Your task to perform on an android device: open app "Google Drive" Image 0: 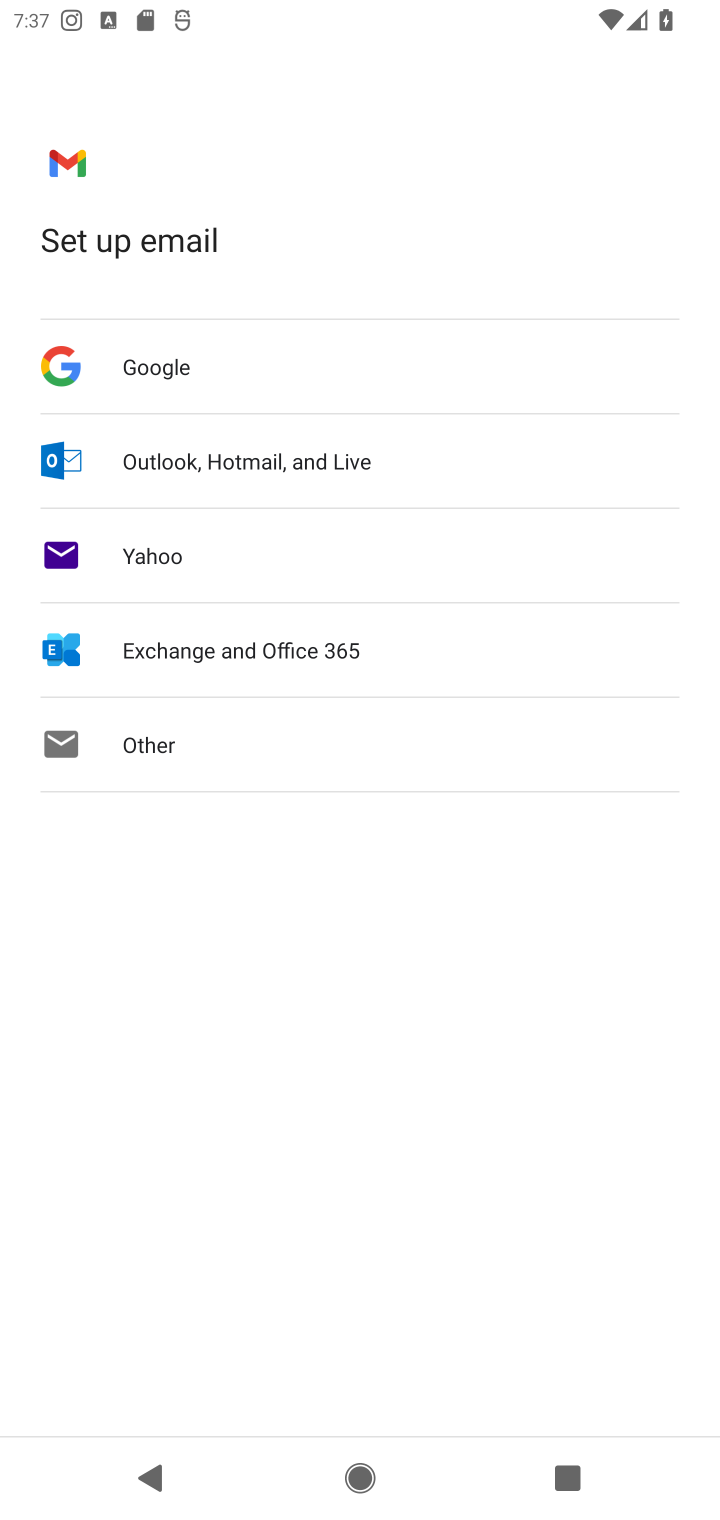
Step 0: press home button
Your task to perform on an android device: open app "Google Drive" Image 1: 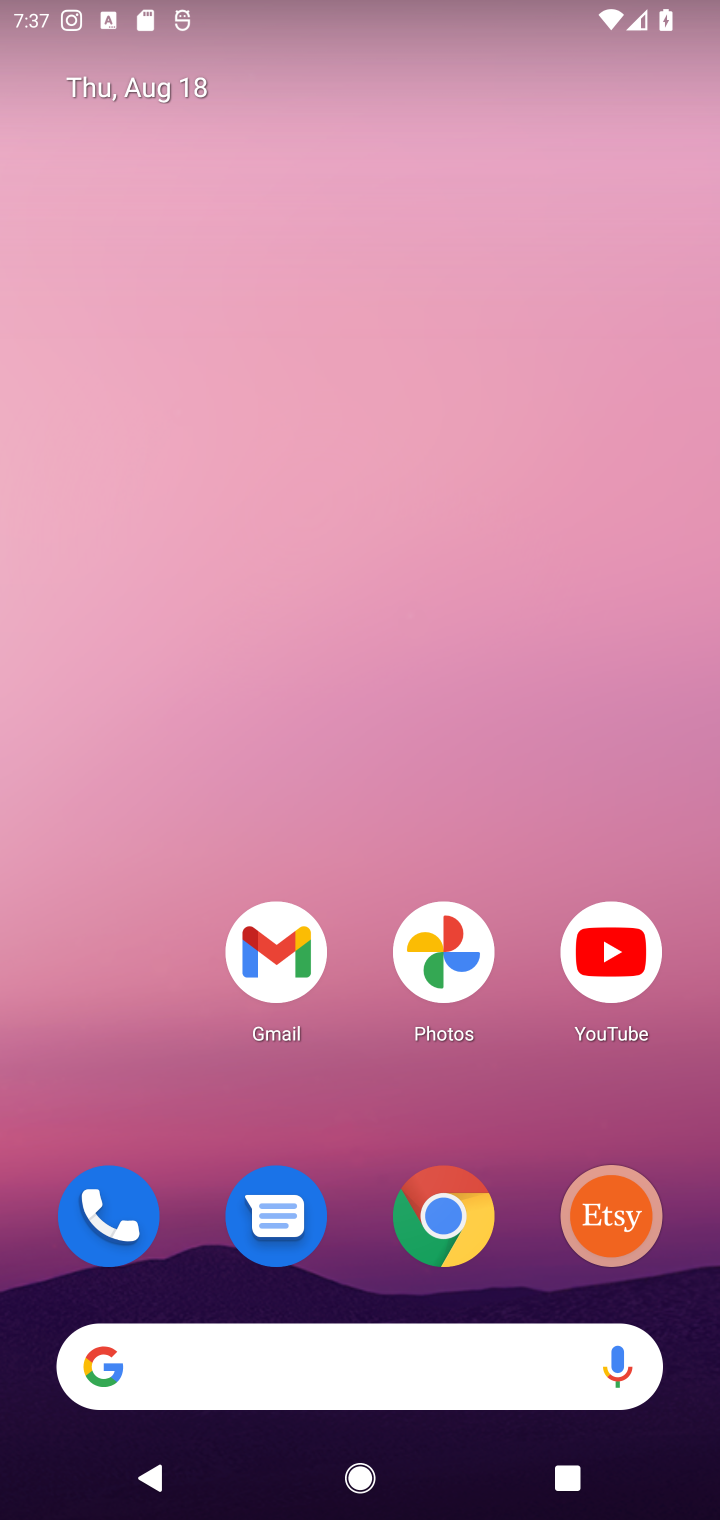
Step 1: drag from (367, 1084) to (451, 334)
Your task to perform on an android device: open app "Google Drive" Image 2: 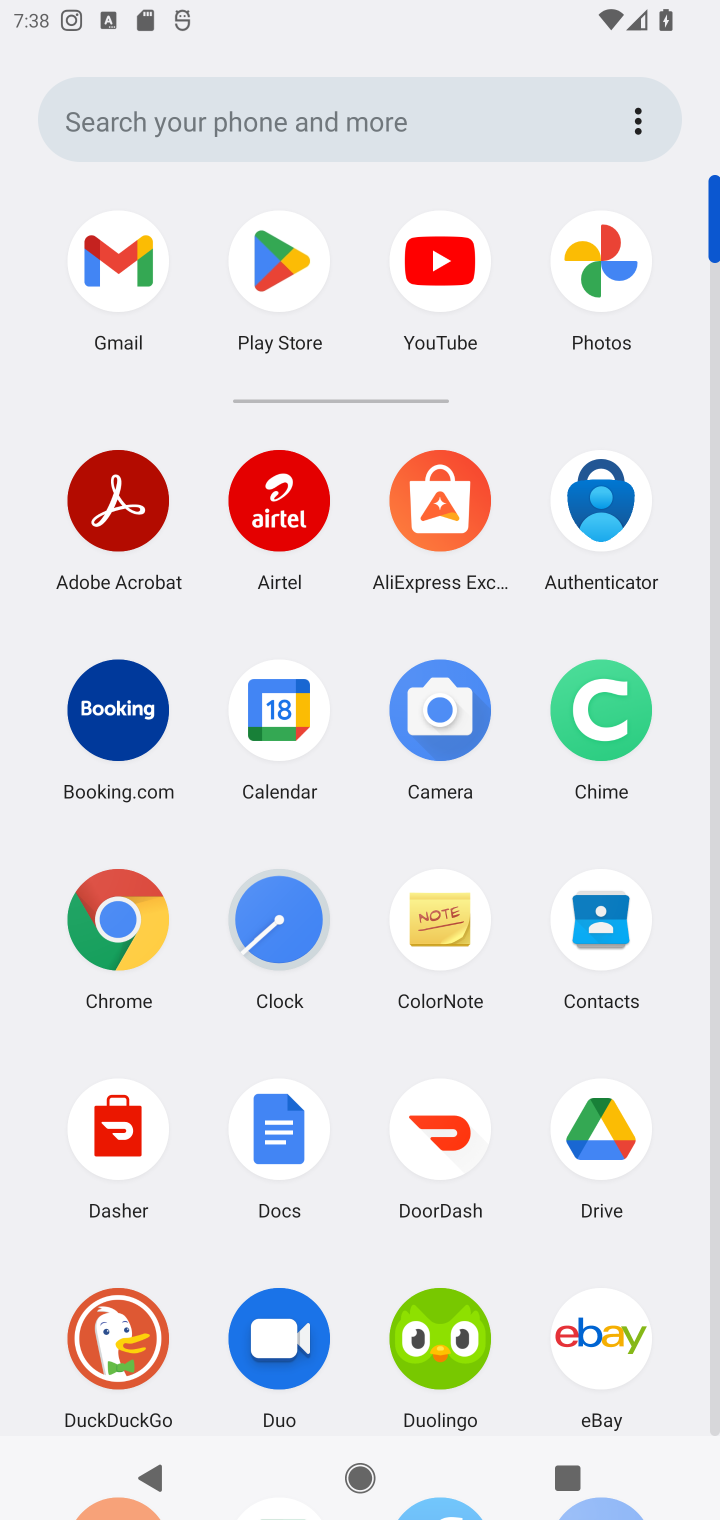
Step 2: click (282, 246)
Your task to perform on an android device: open app "Google Drive" Image 3: 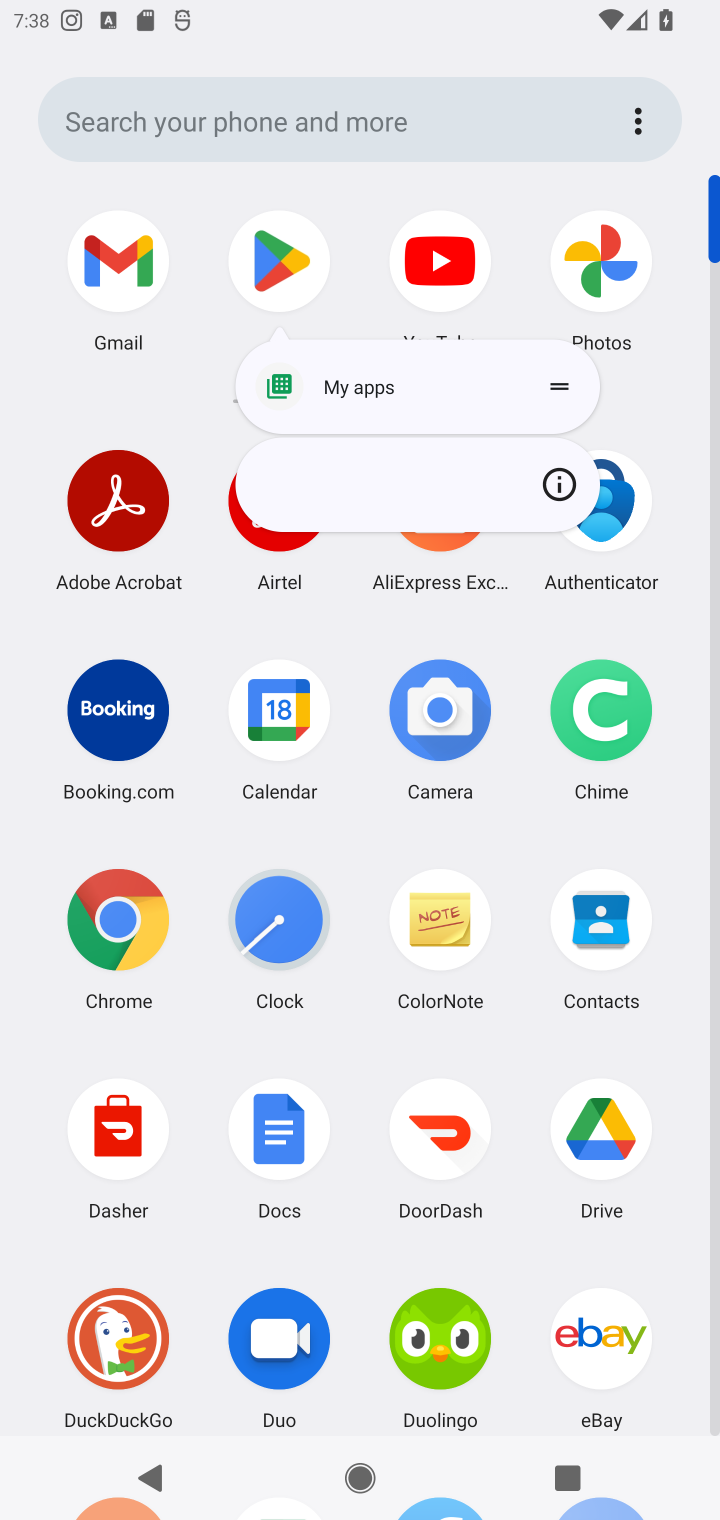
Step 3: click (297, 259)
Your task to perform on an android device: open app "Google Drive" Image 4: 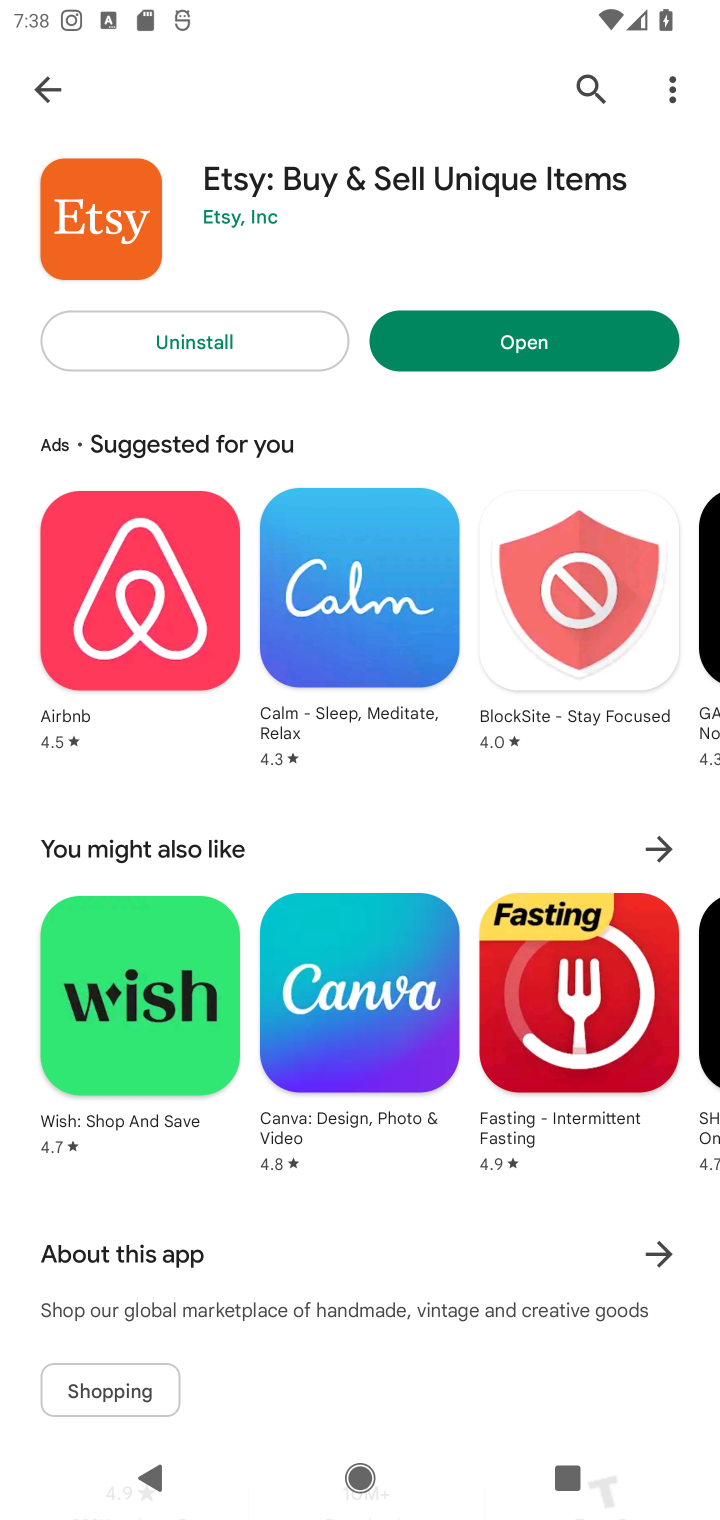
Step 4: click (565, 88)
Your task to perform on an android device: open app "Google Drive" Image 5: 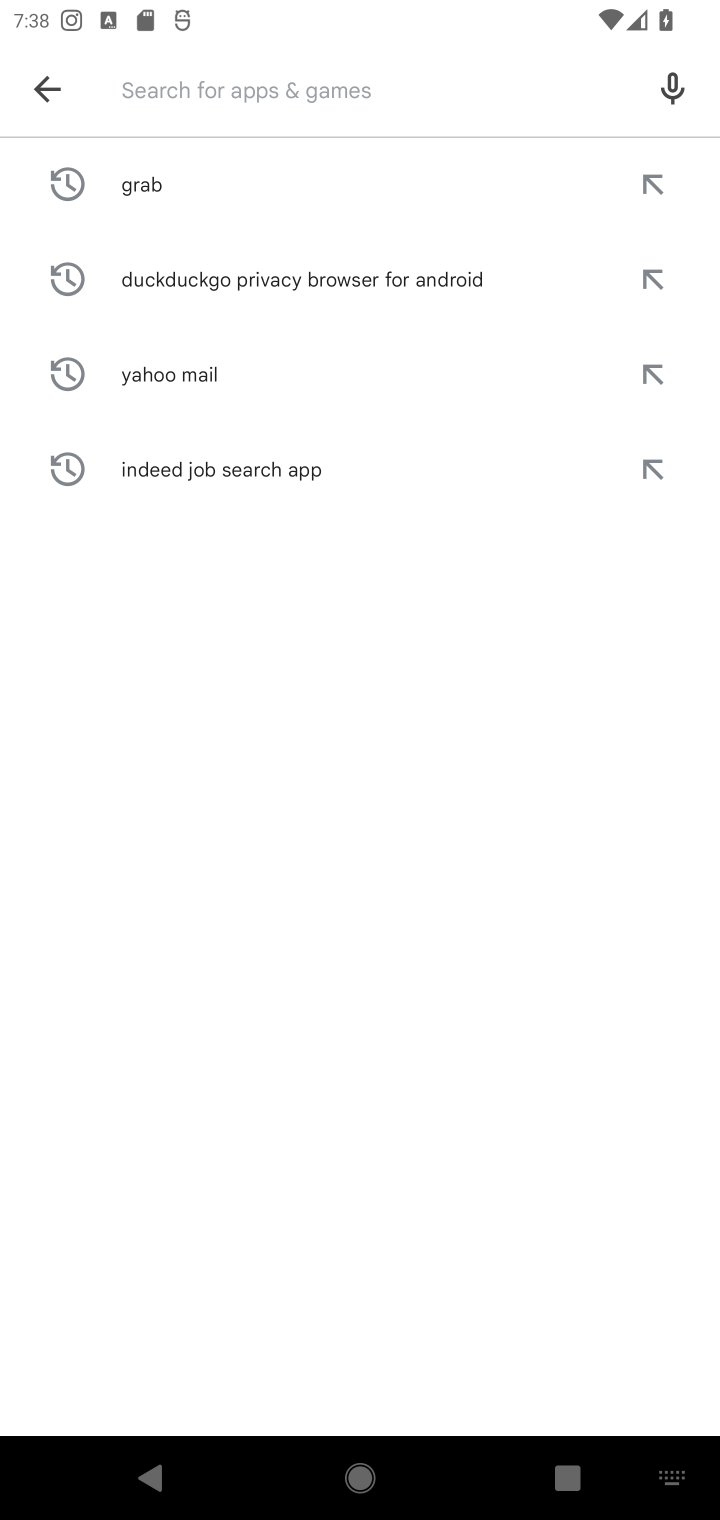
Step 5: type "Google Drive"
Your task to perform on an android device: open app "Google Drive" Image 6: 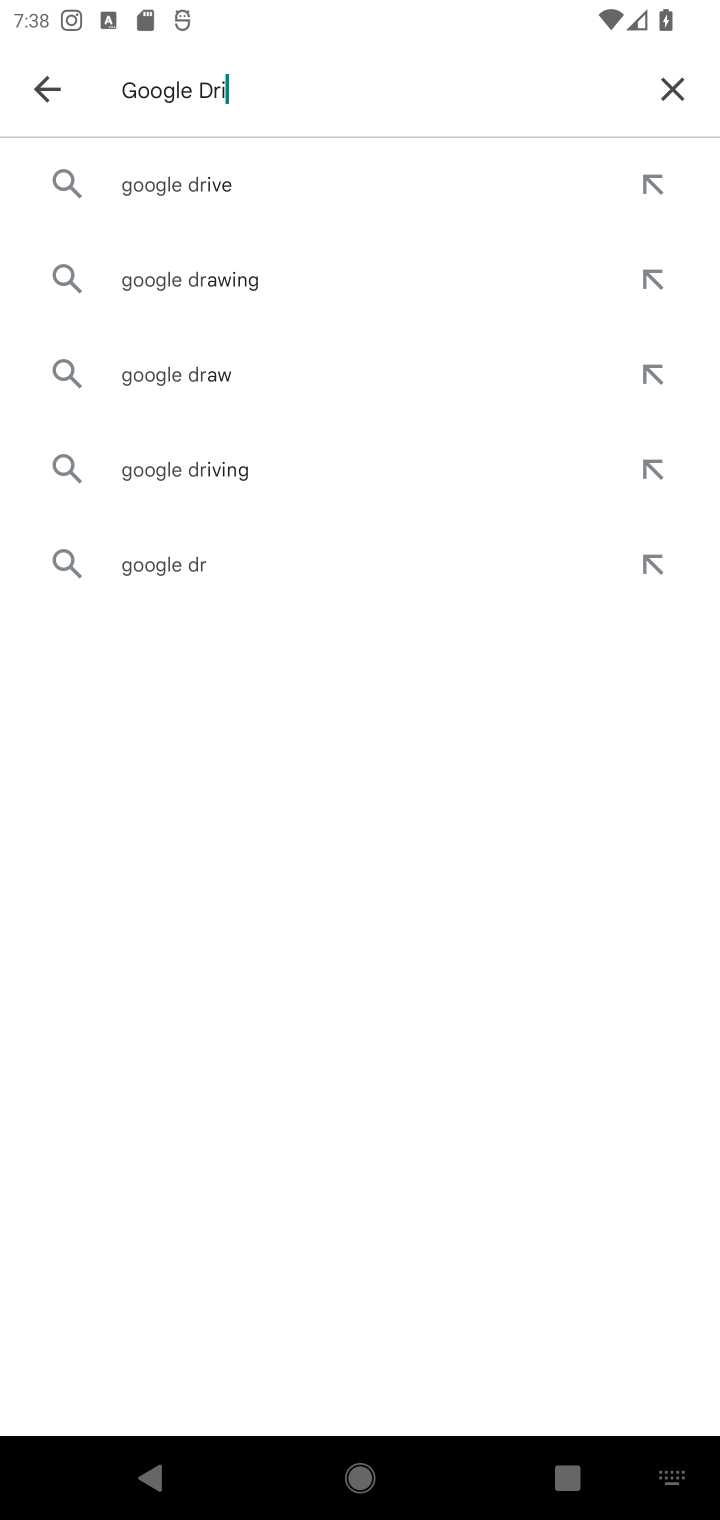
Step 6: type ""
Your task to perform on an android device: open app "Google Drive" Image 7: 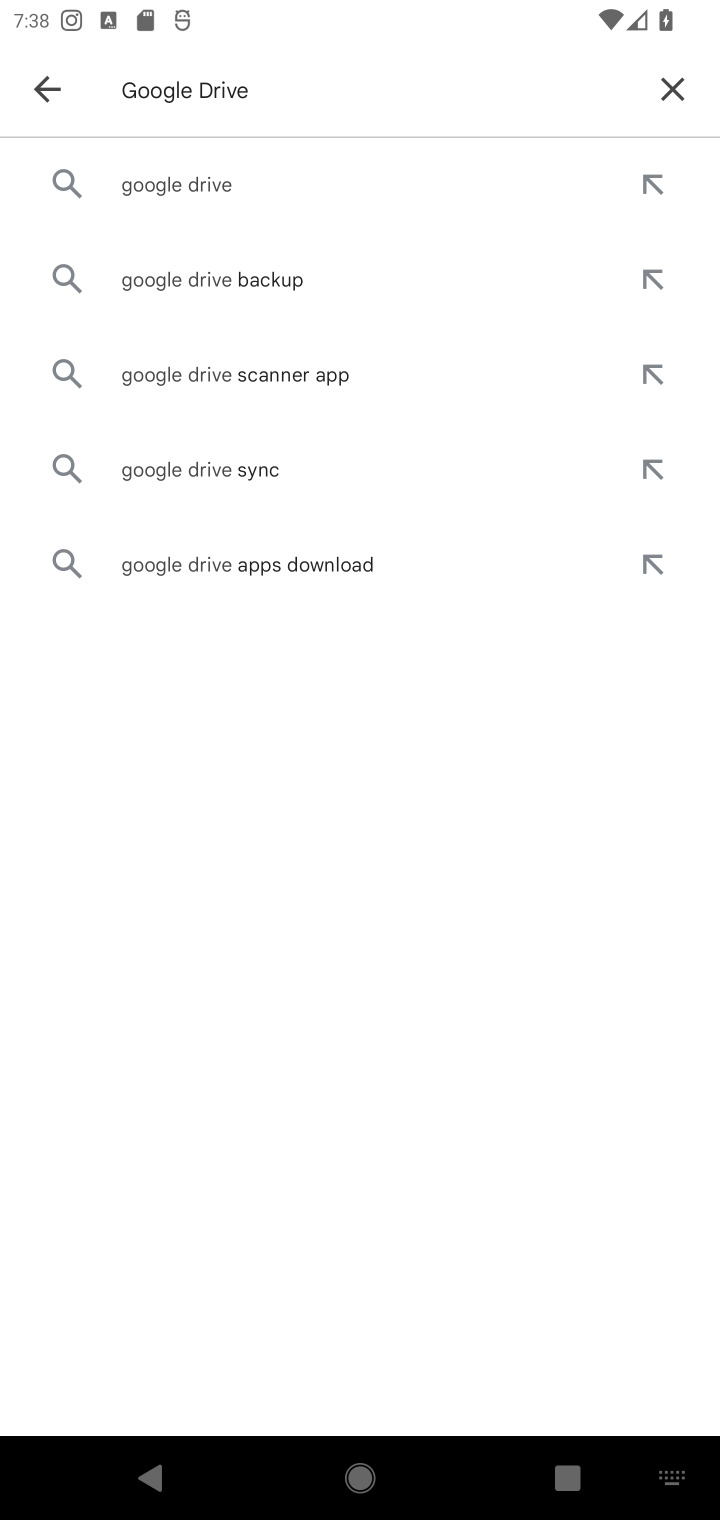
Step 7: click (278, 191)
Your task to perform on an android device: open app "Google Drive" Image 8: 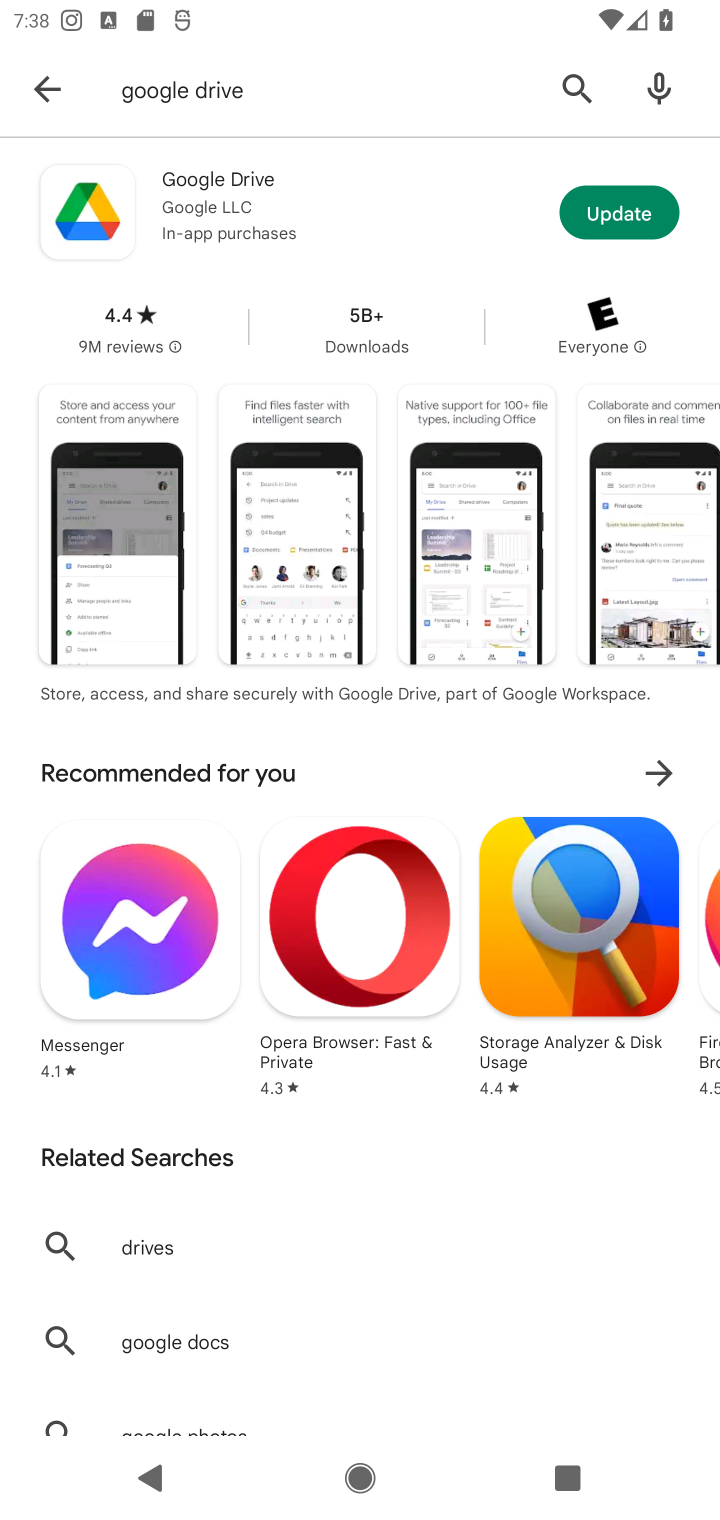
Step 8: click (339, 224)
Your task to perform on an android device: open app "Google Drive" Image 9: 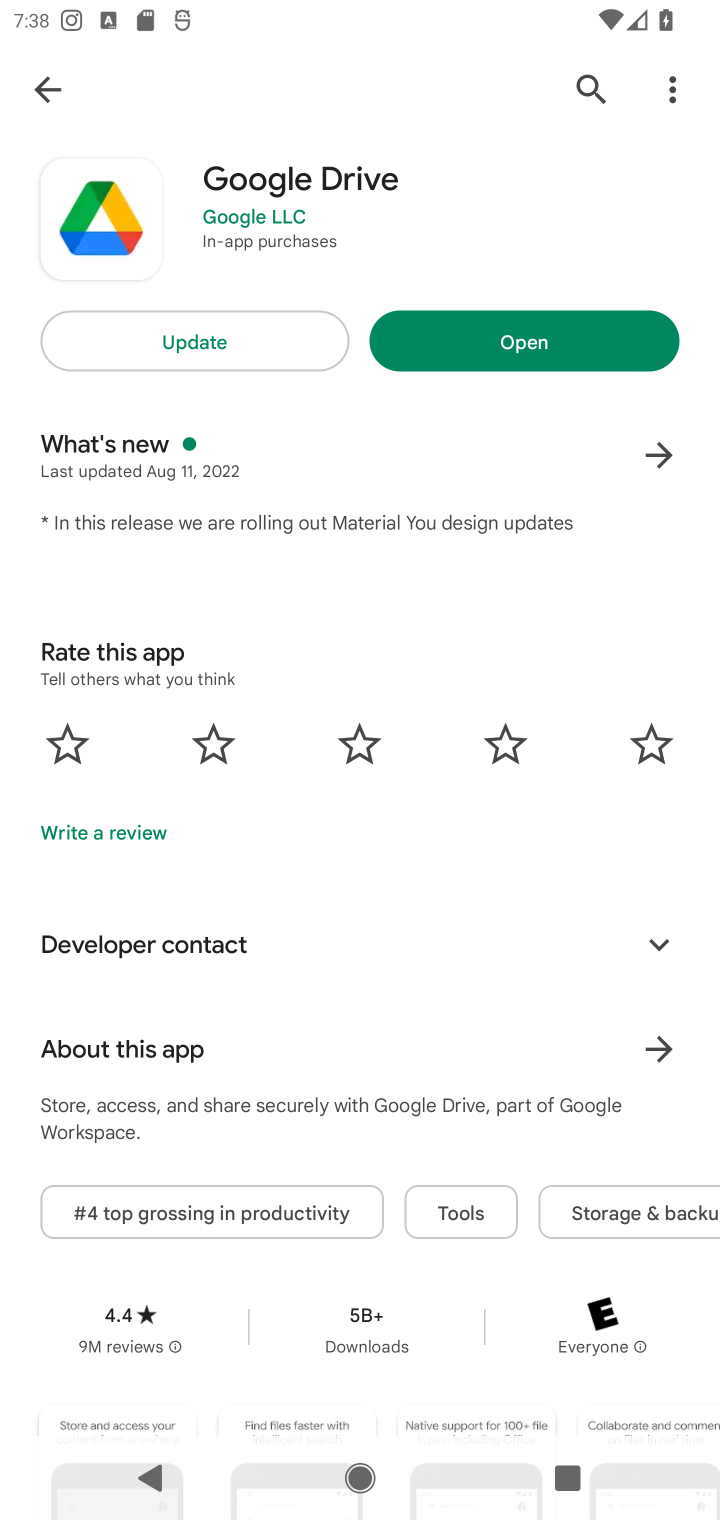
Step 9: click (454, 335)
Your task to perform on an android device: open app "Google Drive" Image 10: 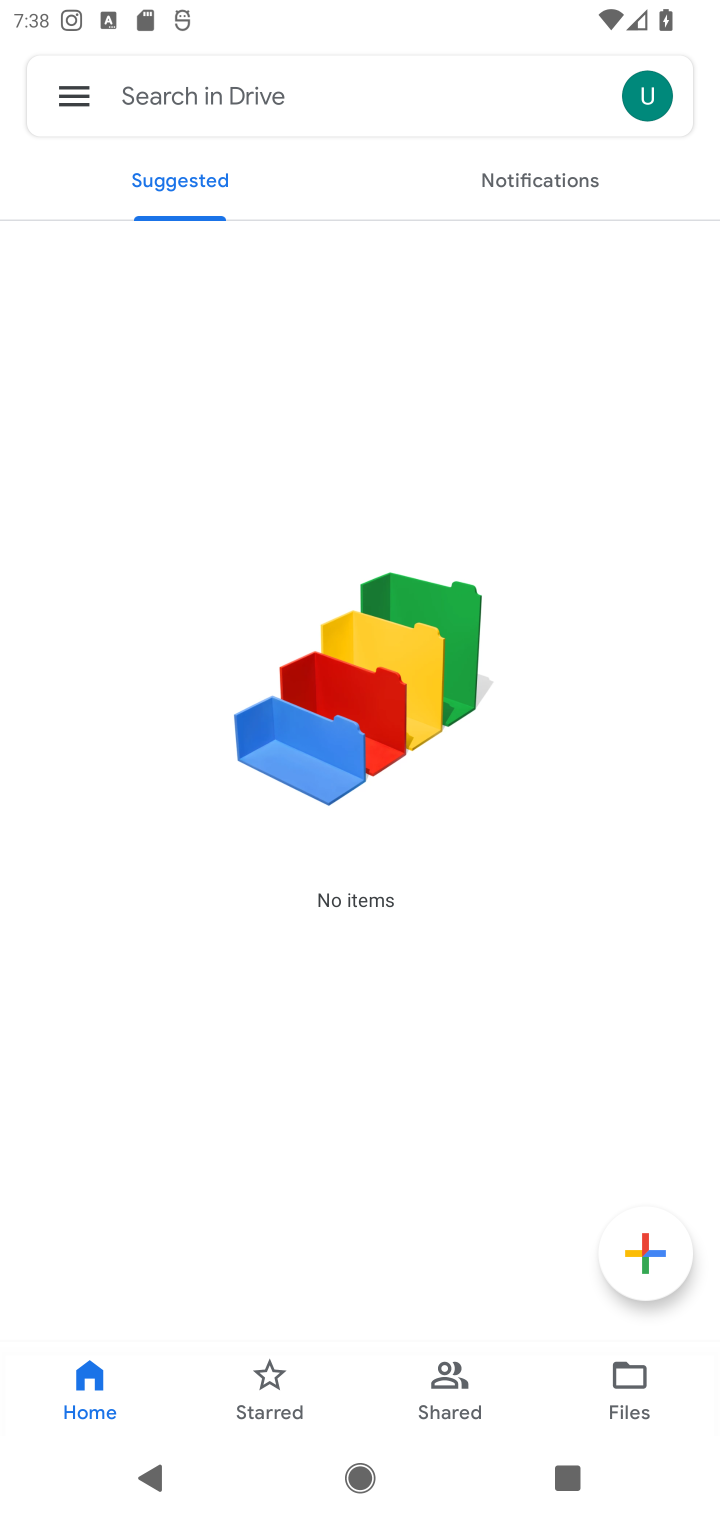
Step 10: task complete